Your task to perform on an android device: open app "File Manager" Image 0: 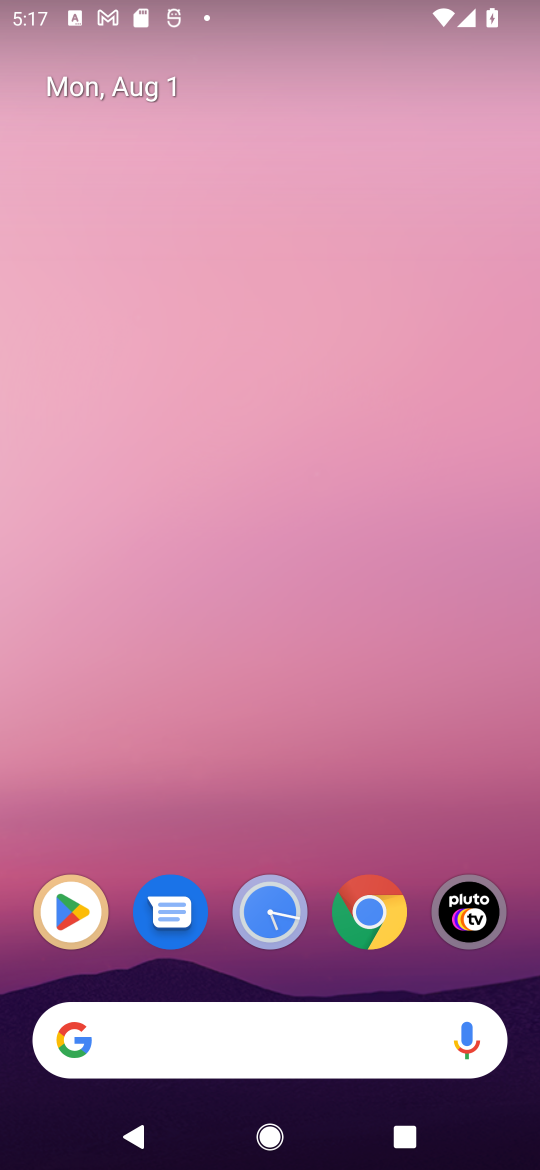
Step 0: click (74, 915)
Your task to perform on an android device: open app "File Manager" Image 1: 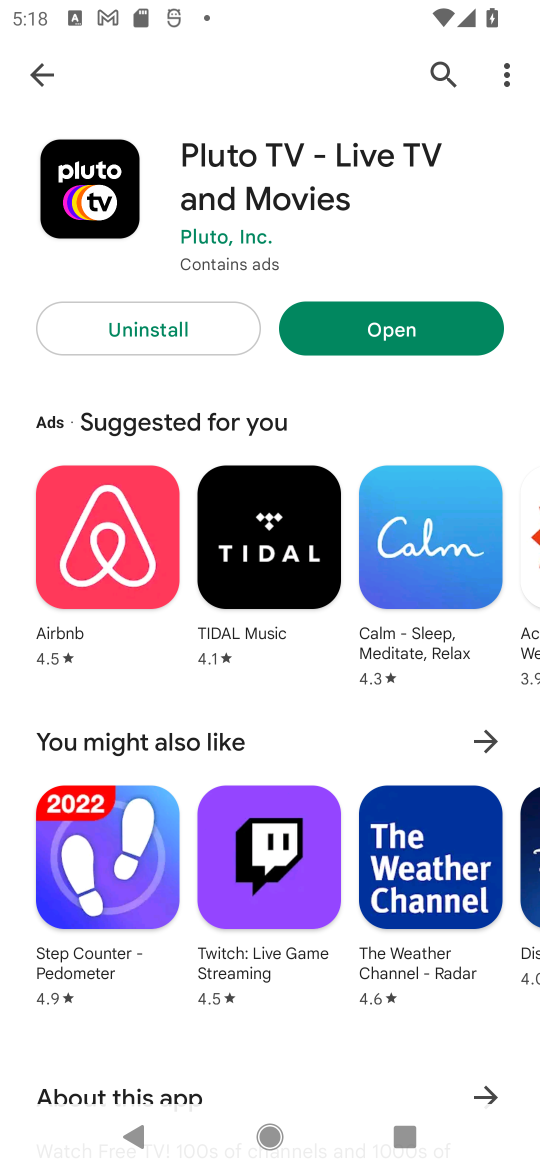
Step 1: click (438, 61)
Your task to perform on an android device: open app "File Manager" Image 2: 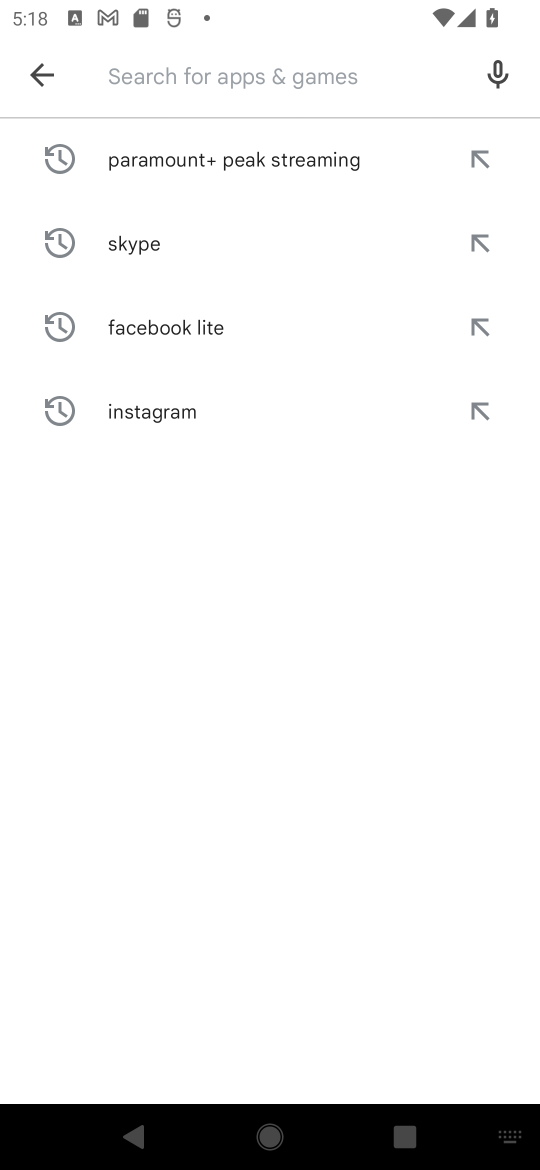
Step 2: type "File Manager"
Your task to perform on an android device: open app "File Manager" Image 3: 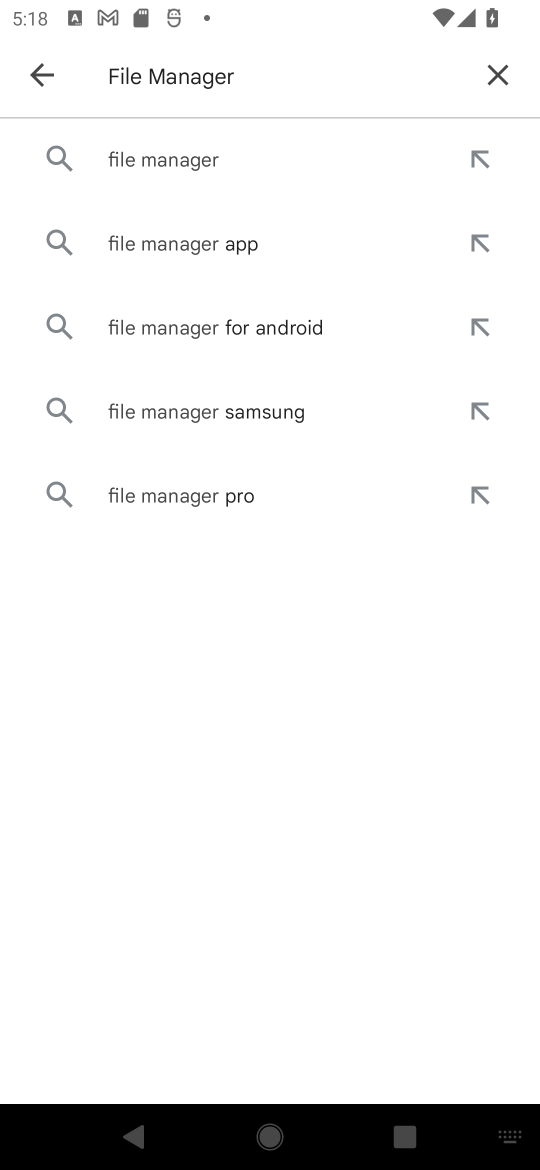
Step 3: click (173, 158)
Your task to perform on an android device: open app "File Manager" Image 4: 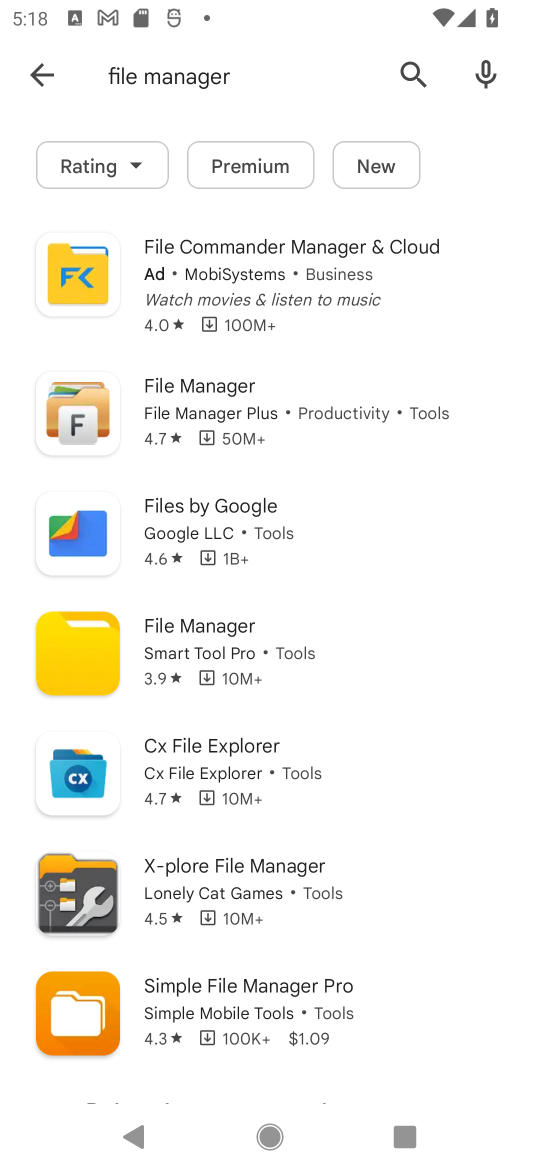
Step 4: click (149, 406)
Your task to perform on an android device: open app "File Manager" Image 5: 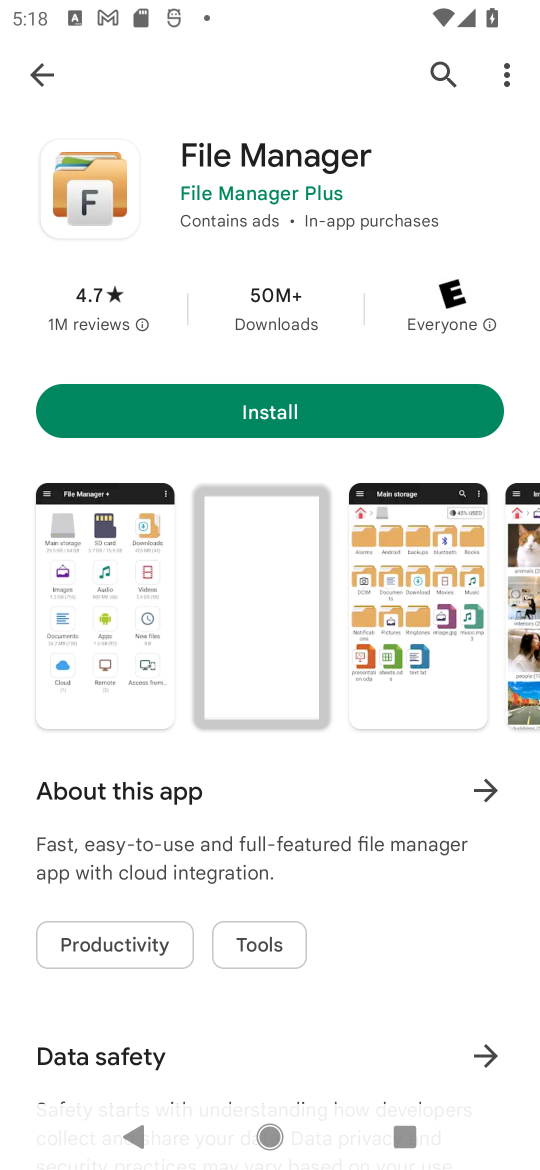
Step 5: task complete